Your task to perform on an android device: open a new tab in the chrome app Image 0: 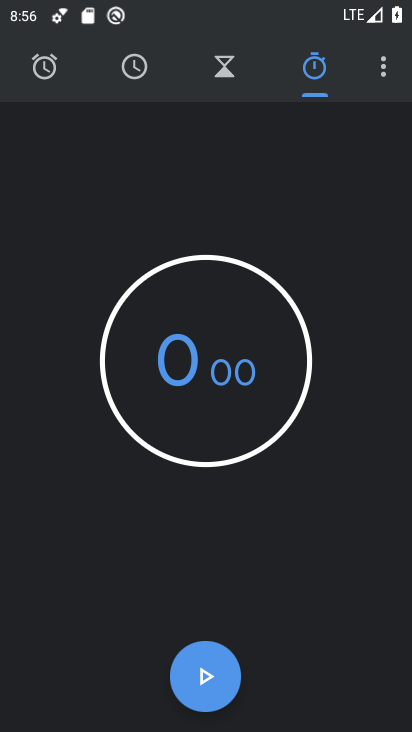
Step 0: press home button
Your task to perform on an android device: open a new tab in the chrome app Image 1: 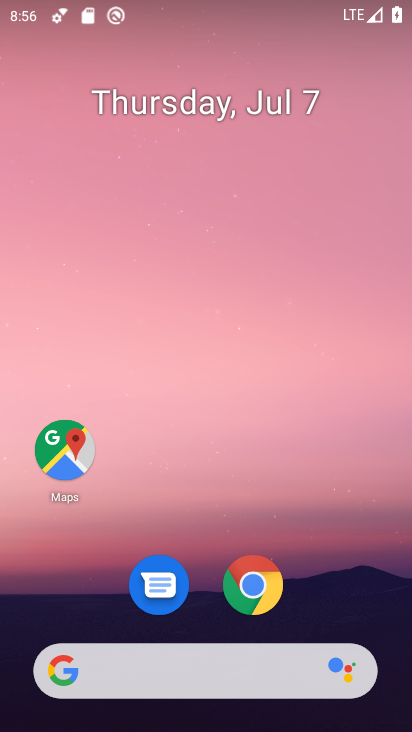
Step 1: drag from (200, 491) to (232, 22)
Your task to perform on an android device: open a new tab in the chrome app Image 2: 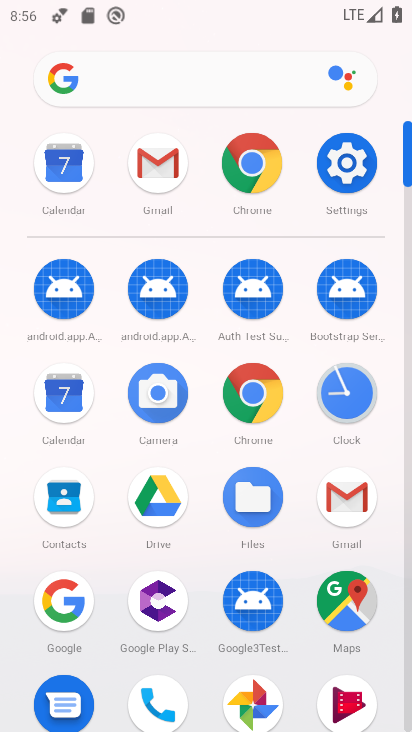
Step 2: click (259, 178)
Your task to perform on an android device: open a new tab in the chrome app Image 3: 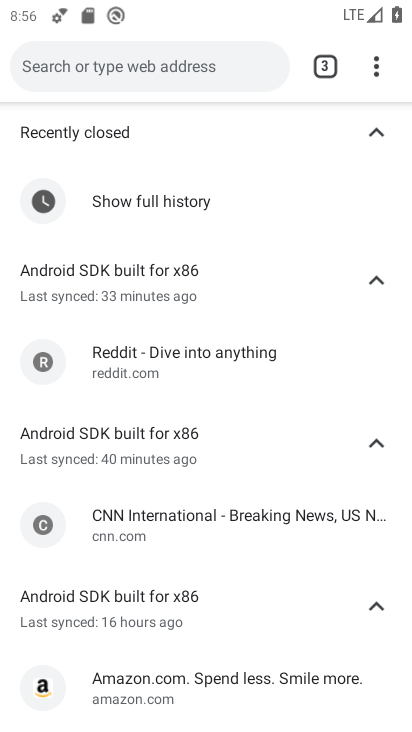
Step 3: click (375, 66)
Your task to perform on an android device: open a new tab in the chrome app Image 4: 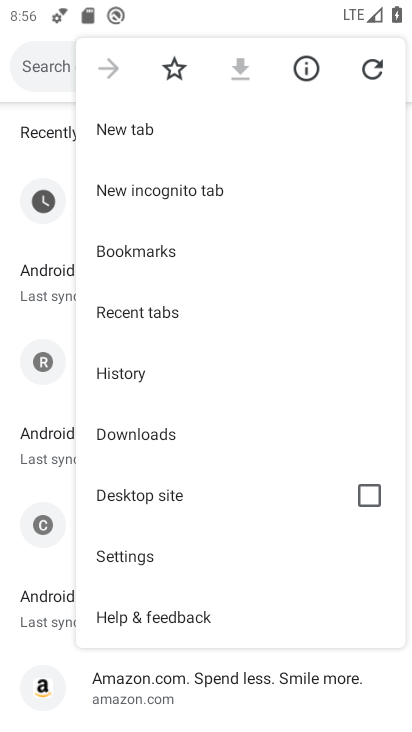
Step 4: click (253, 121)
Your task to perform on an android device: open a new tab in the chrome app Image 5: 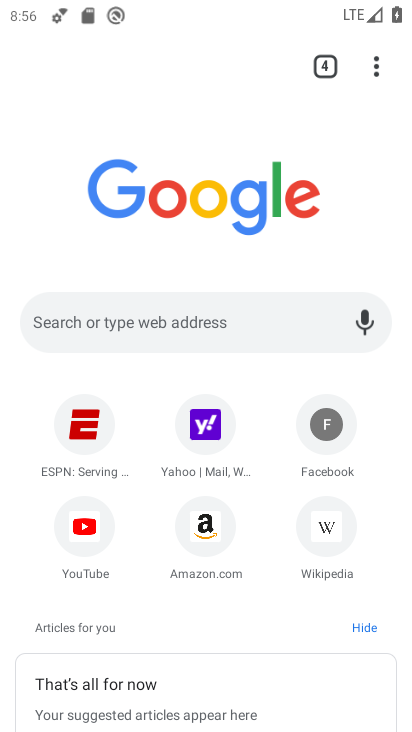
Step 5: click (372, 72)
Your task to perform on an android device: open a new tab in the chrome app Image 6: 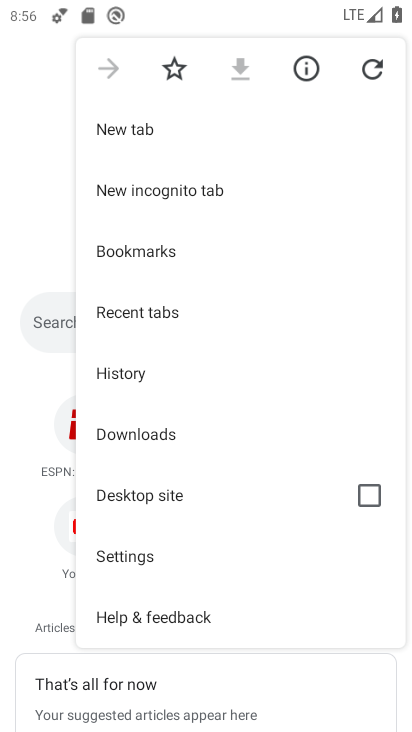
Step 6: click (161, 123)
Your task to perform on an android device: open a new tab in the chrome app Image 7: 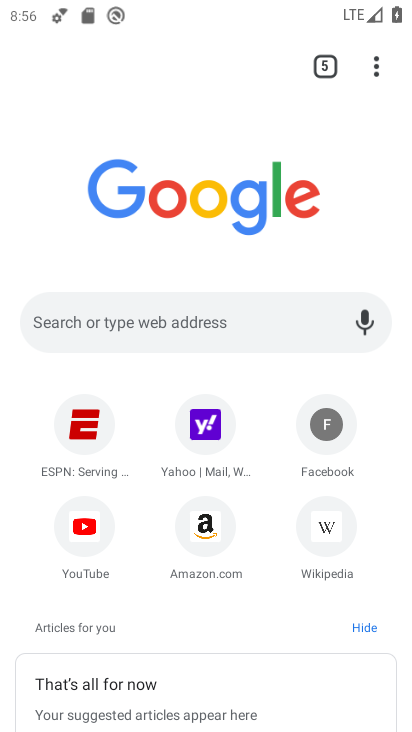
Step 7: task complete